Your task to perform on an android device: snooze an email in the gmail app Image 0: 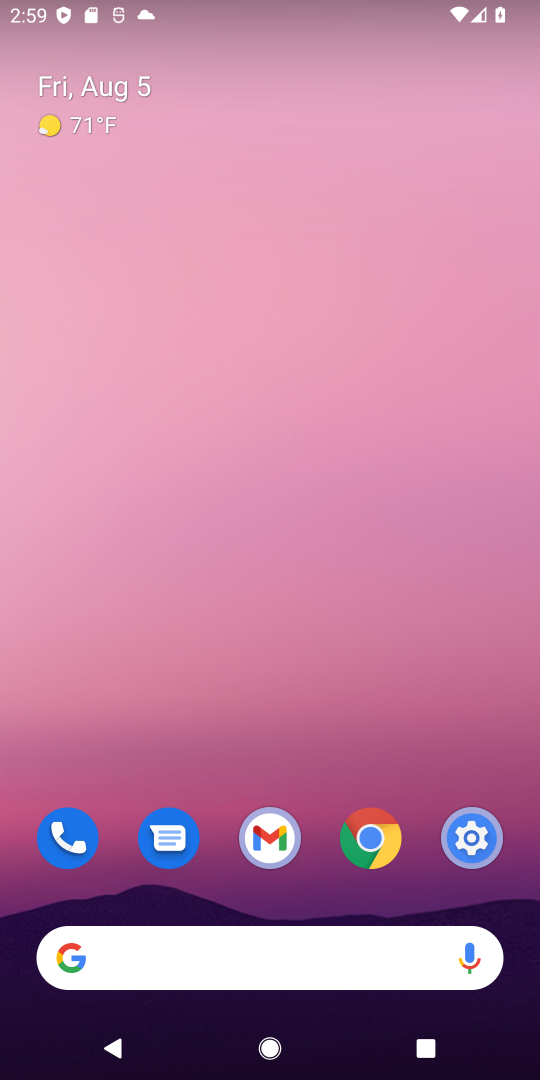
Step 0: drag from (324, 909) to (231, 269)
Your task to perform on an android device: snooze an email in the gmail app Image 1: 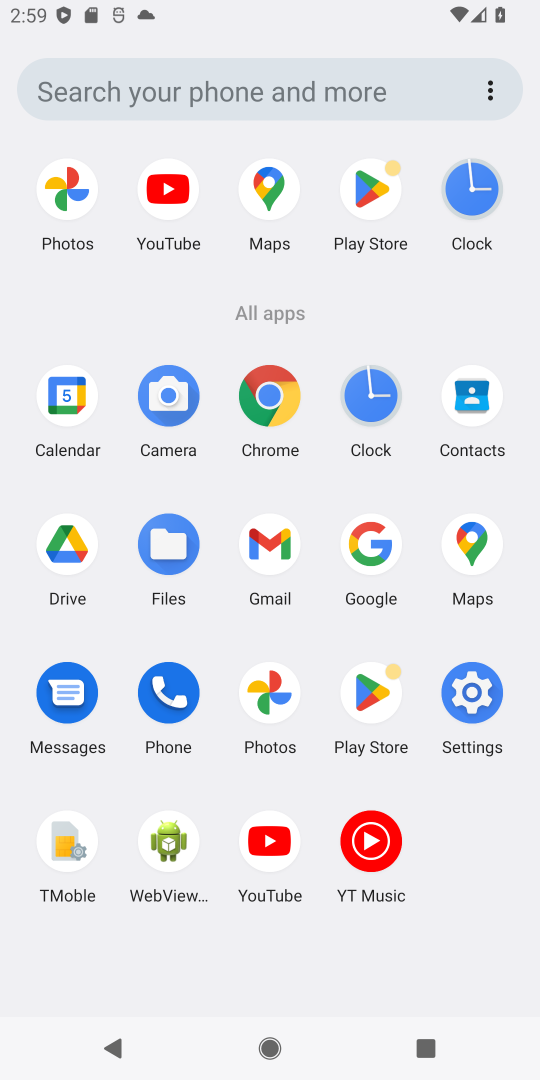
Step 1: click (287, 556)
Your task to perform on an android device: snooze an email in the gmail app Image 2: 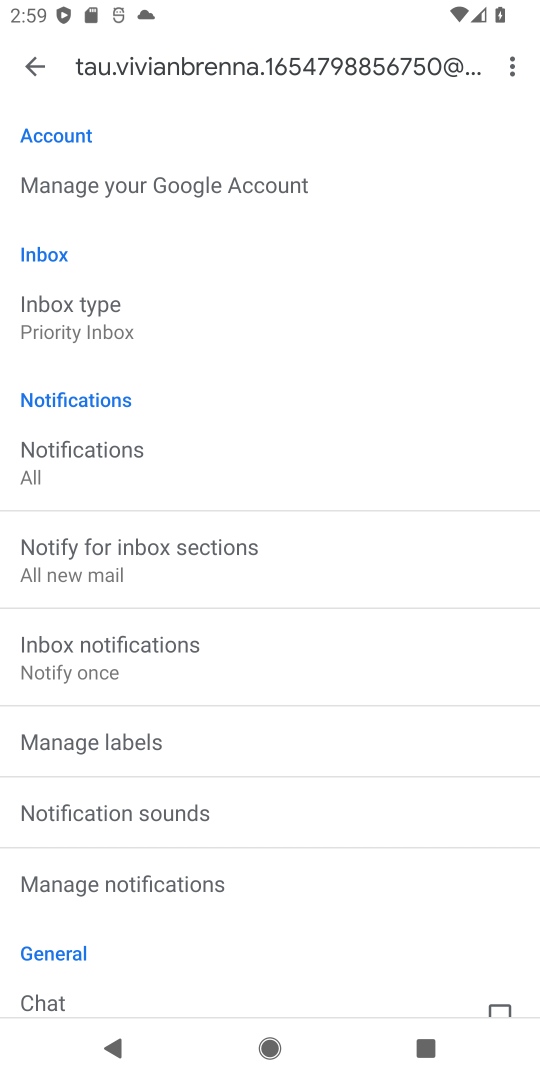
Step 2: click (31, 70)
Your task to perform on an android device: snooze an email in the gmail app Image 3: 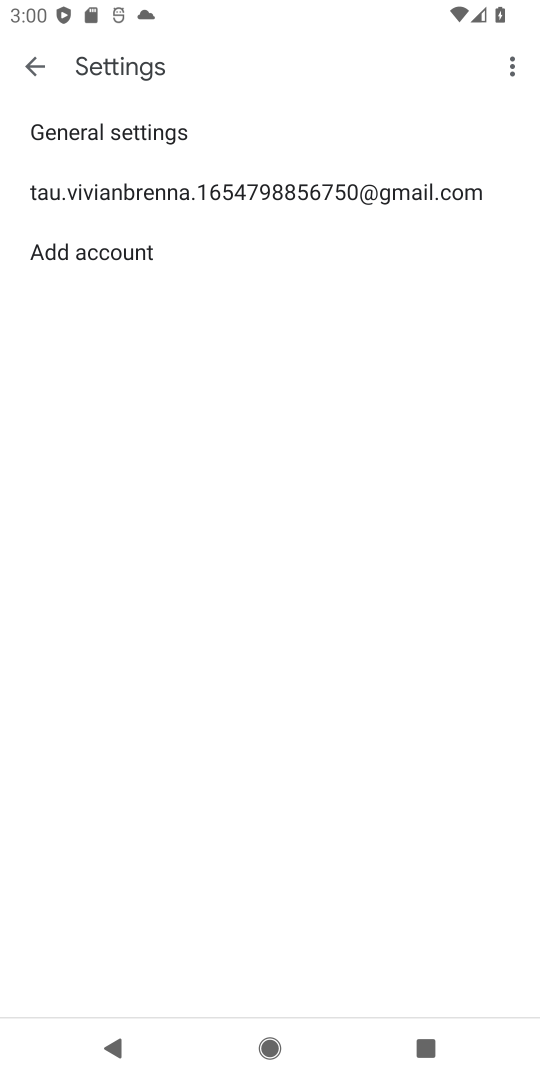
Step 3: click (46, 83)
Your task to perform on an android device: snooze an email in the gmail app Image 4: 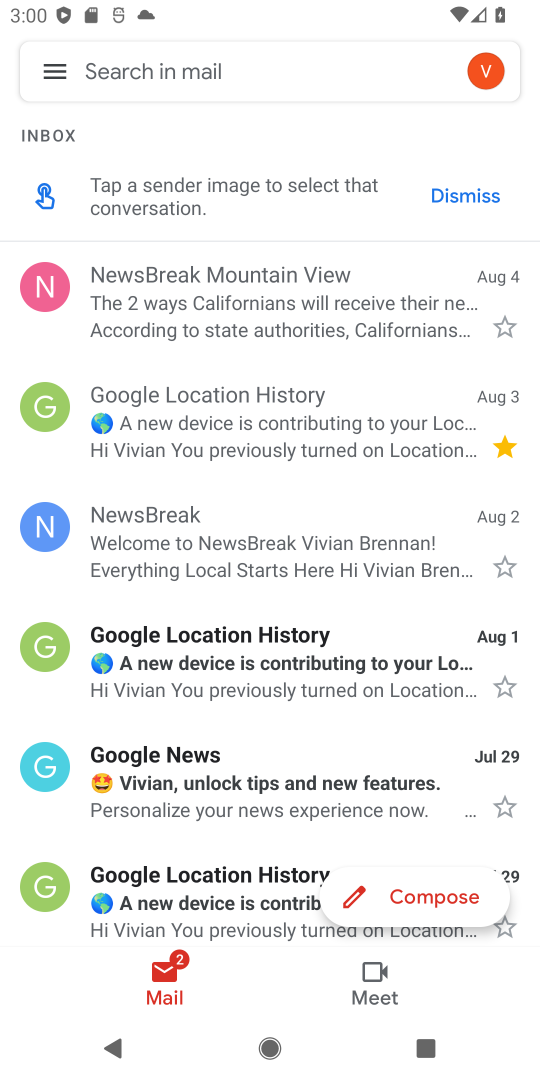
Step 4: click (46, 69)
Your task to perform on an android device: snooze an email in the gmail app Image 5: 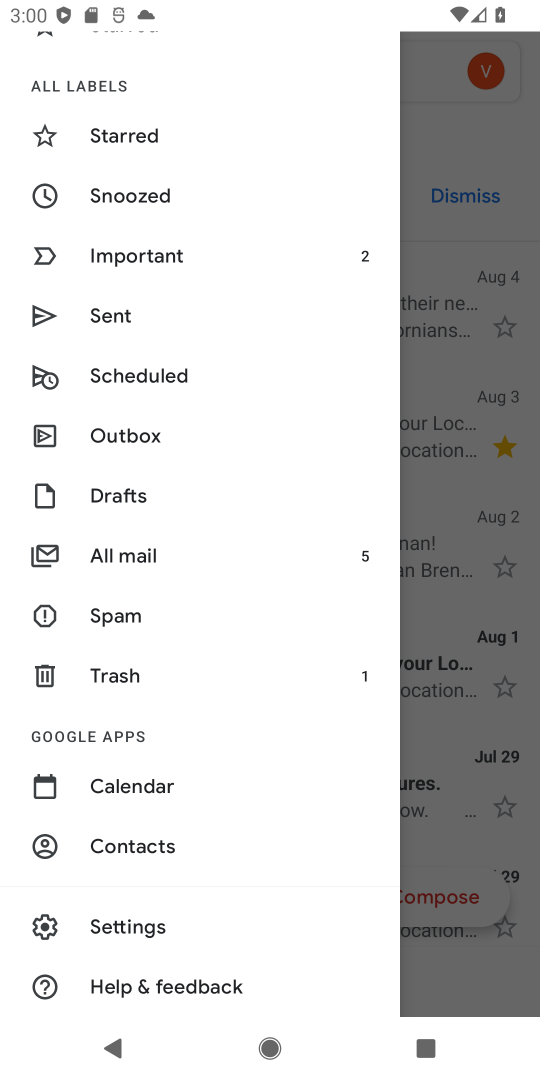
Step 5: click (165, 556)
Your task to perform on an android device: snooze an email in the gmail app Image 6: 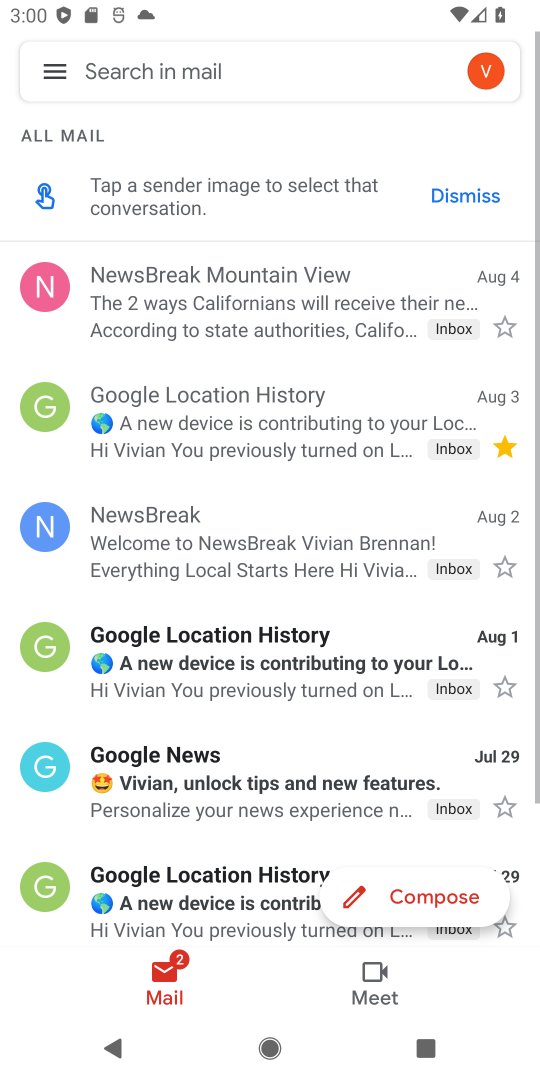
Step 6: click (320, 568)
Your task to perform on an android device: snooze an email in the gmail app Image 7: 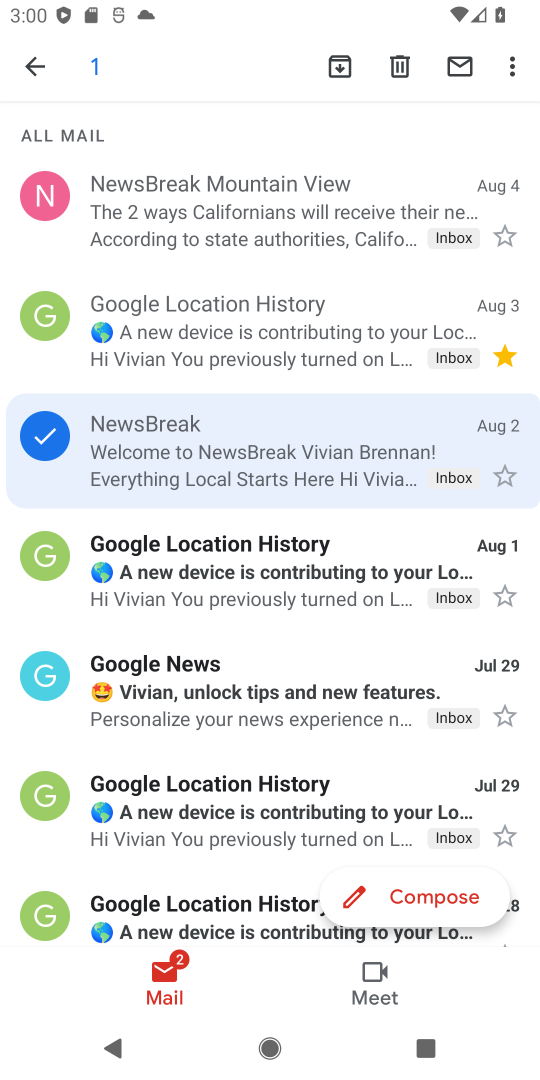
Step 7: click (522, 58)
Your task to perform on an android device: snooze an email in the gmail app Image 8: 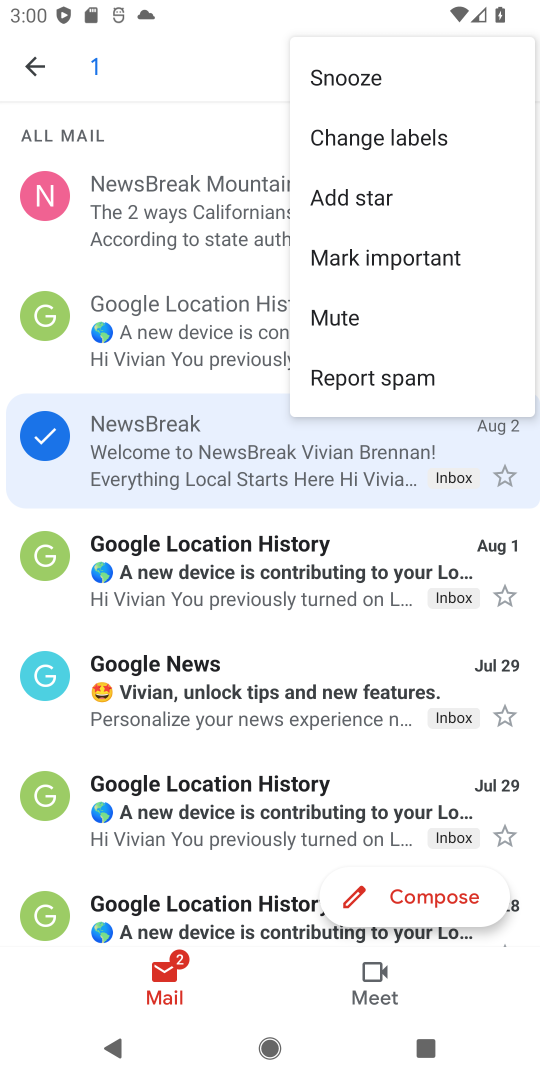
Step 8: click (425, 75)
Your task to perform on an android device: snooze an email in the gmail app Image 9: 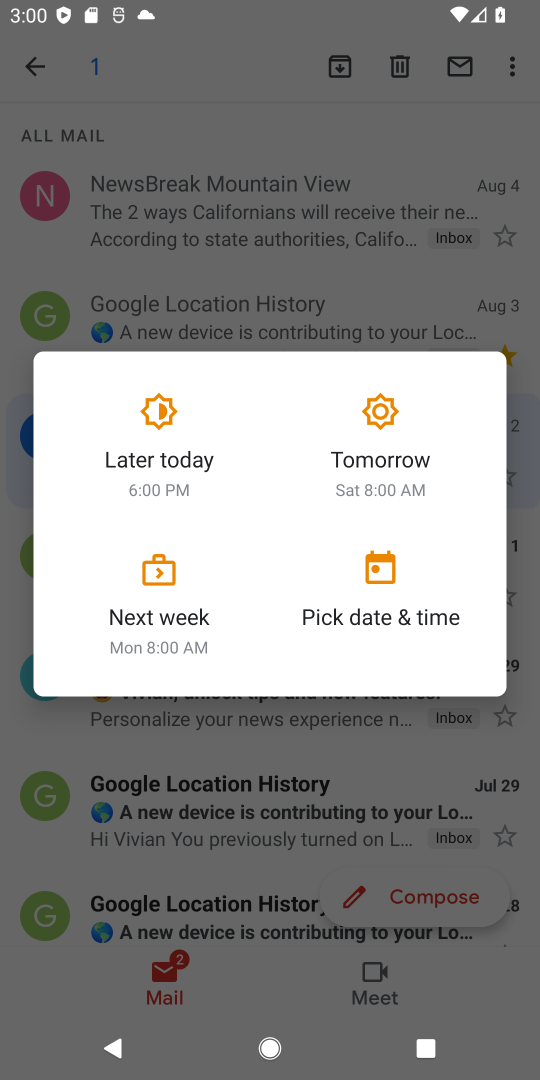
Step 9: click (387, 441)
Your task to perform on an android device: snooze an email in the gmail app Image 10: 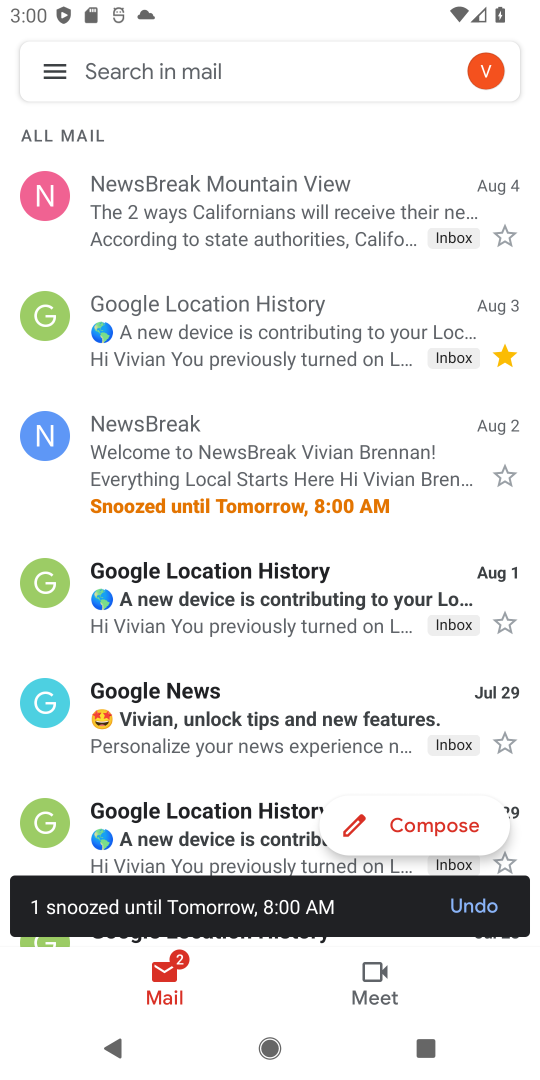
Step 10: task complete